Your task to perform on an android device: create a new album in the google photos Image 0: 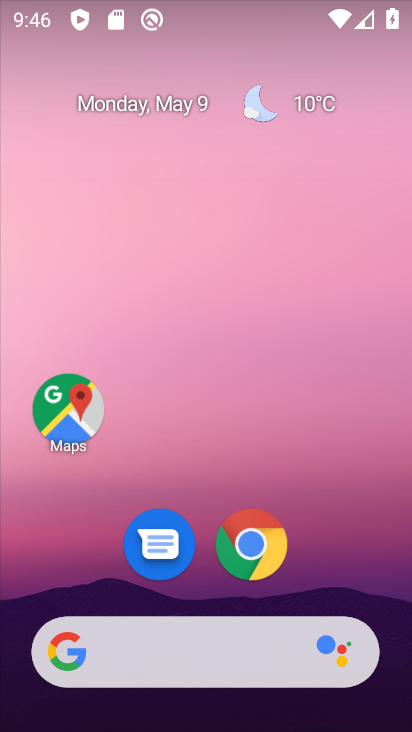
Step 0: drag from (396, 674) to (374, 337)
Your task to perform on an android device: create a new album in the google photos Image 1: 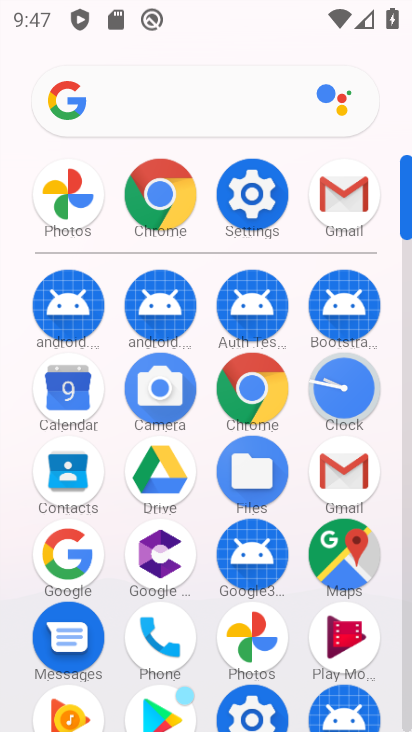
Step 1: click (248, 635)
Your task to perform on an android device: create a new album in the google photos Image 2: 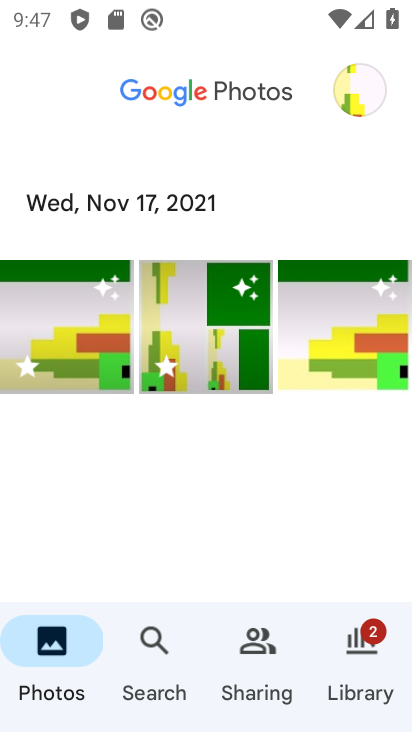
Step 2: click (367, 92)
Your task to perform on an android device: create a new album in the google photos Image 3: 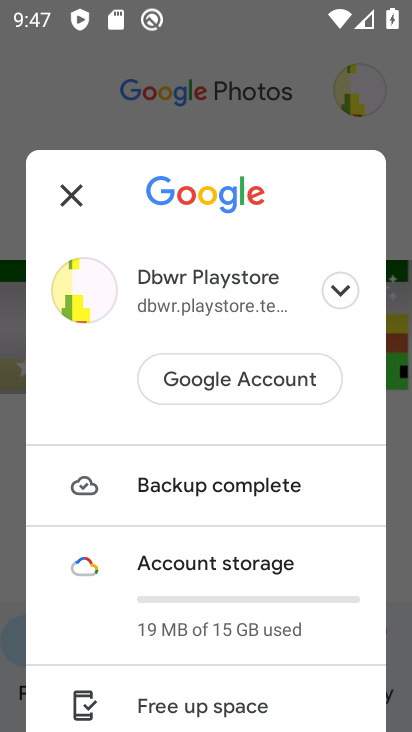
Step 3: drag from (328, 672) to (310, 282)
Your task to perform on an android device: create a new album in the google photos Image 4: 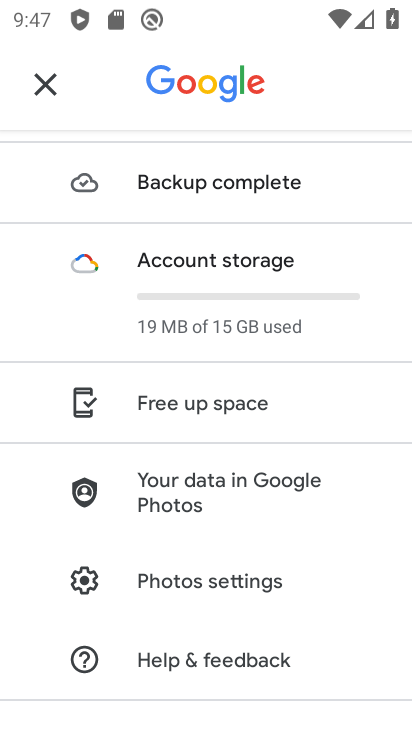
Step 4: drag from (303, 678) to (285, 352)
Your task to perform on an android device: create a new album in the google photos Image 5: 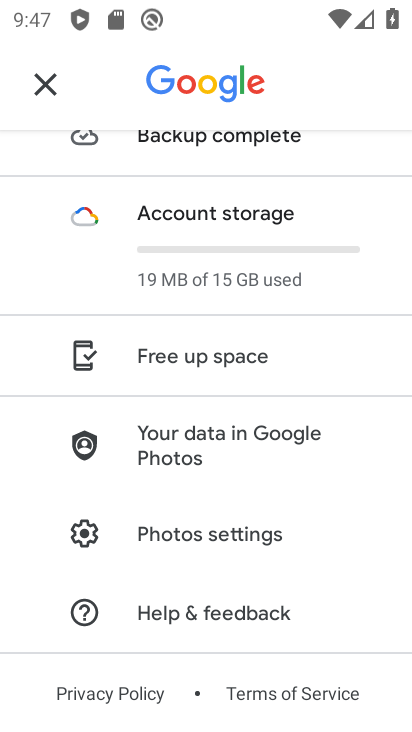
Step 5: drag from (344, 340) to (338, 298)
Your task to perform on an android device: create a new album in the google photos Image 6: 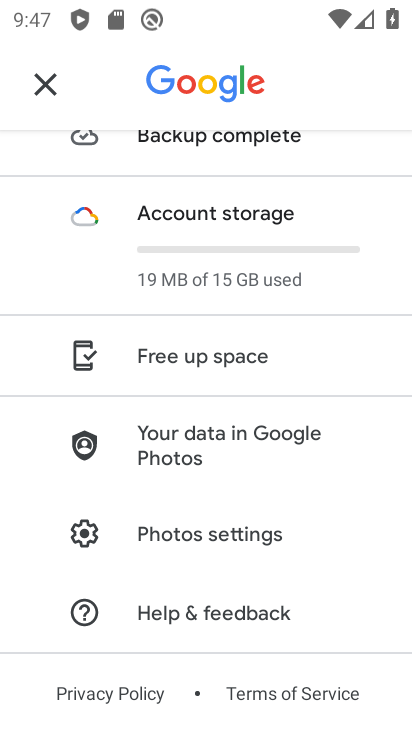
Step 6: drag from (361, 186) to (394, 528)
Your task to perform on an android device: create a new album in the google photos Image 7: 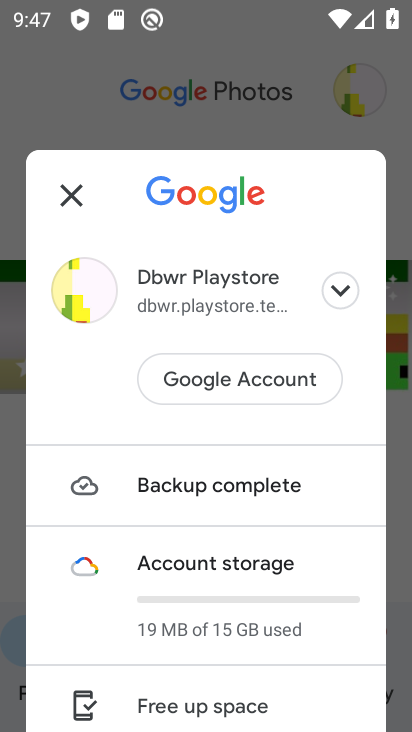
Step 7: drag from (312, 522) to (273, 310)
Your task to perform on an android device: create a new album in the google photos Image 8: 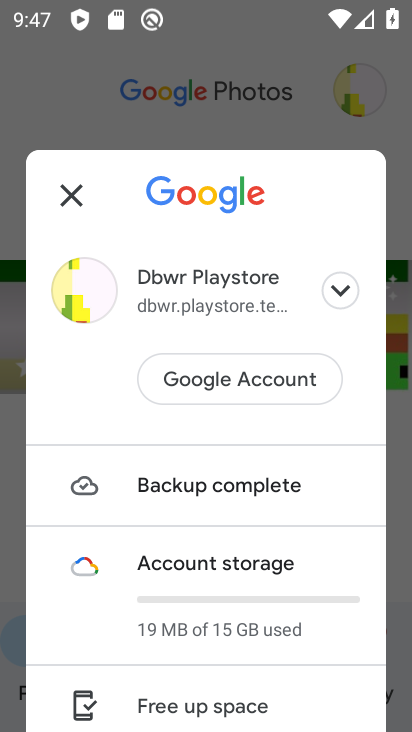
Step 8: drag from (319, 695) to (301, 382)
Your task to perform on an android device: create a new album in the google photos Image 9: 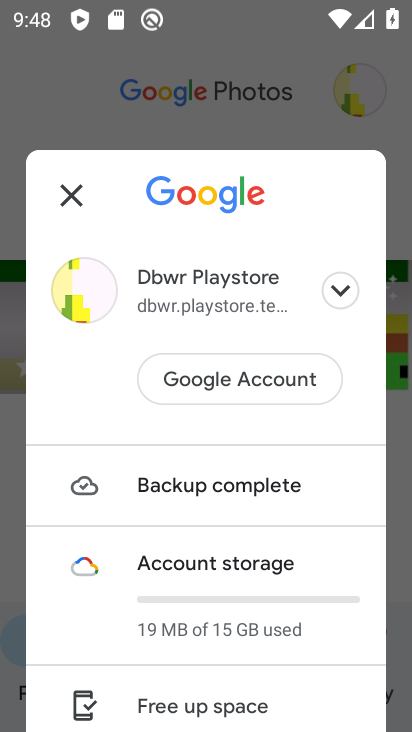
Step 9: click (72, 197)
Your task to perform on an android device: create a new album in the google photos Image 10: 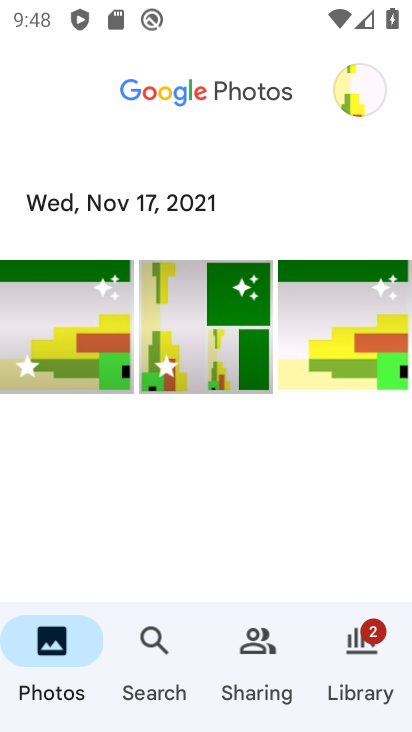
Step 10: task complete